Your task to perform on an android device: turn on translation in the chrome app Image 0: 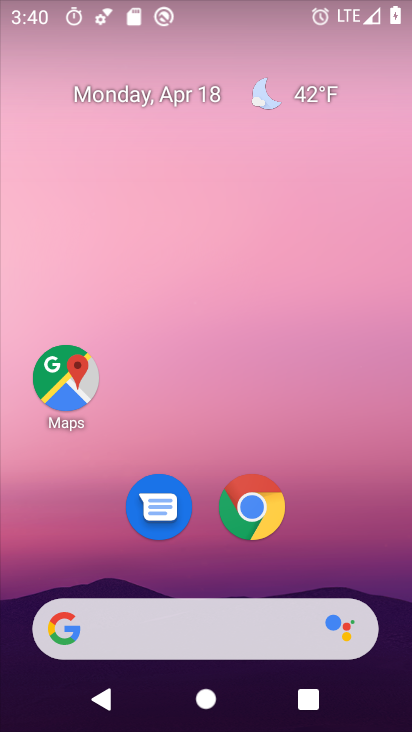
Step 0: drag from (360, 554) to (359, 204)
Your task to perform on an android device: turn on translation in the chrome app Image 1: 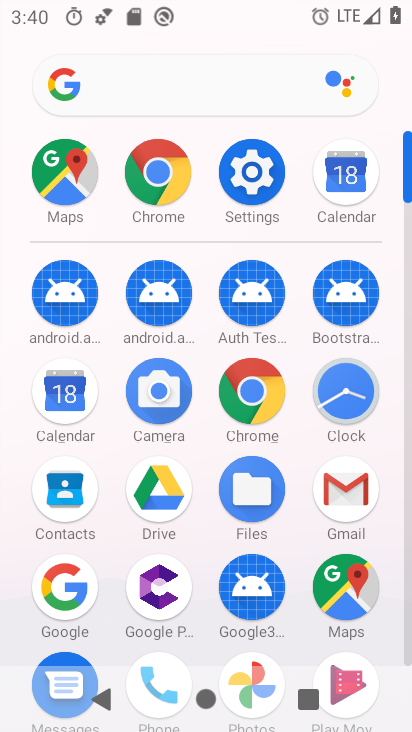
Step 1: click (265, 407)
Your task to perform on an android device: turn on translation in the chrome app Image 2: 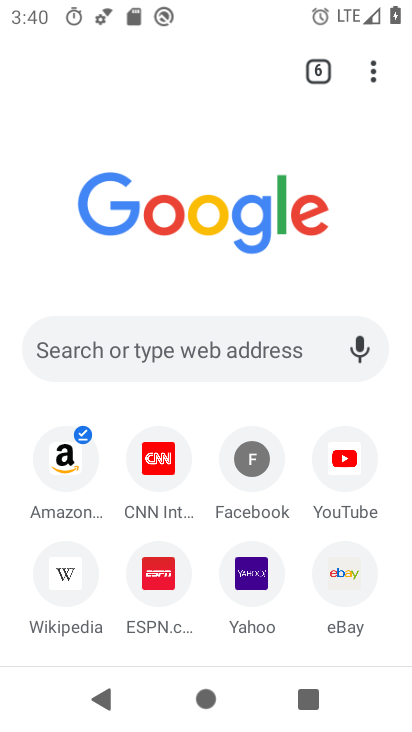
Step 2: click (374, 73)
Your task to perform on an android device: turn on translation in the chrome app Image 3: 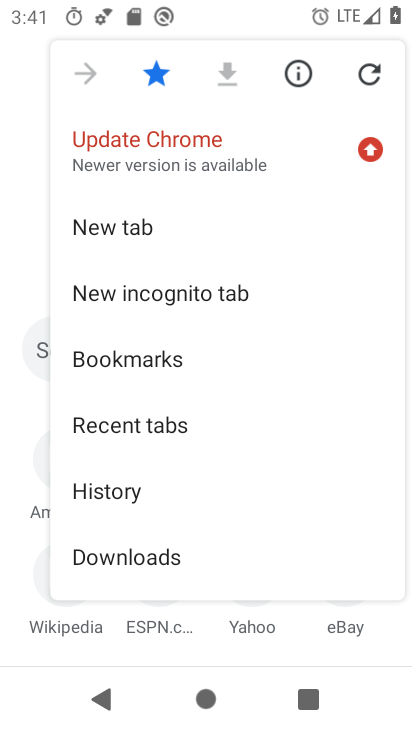
Step 3: drag from (193, 518) to (254, 250)
Your task to perform on an android device: turn on translation in the chrome app Image 4: 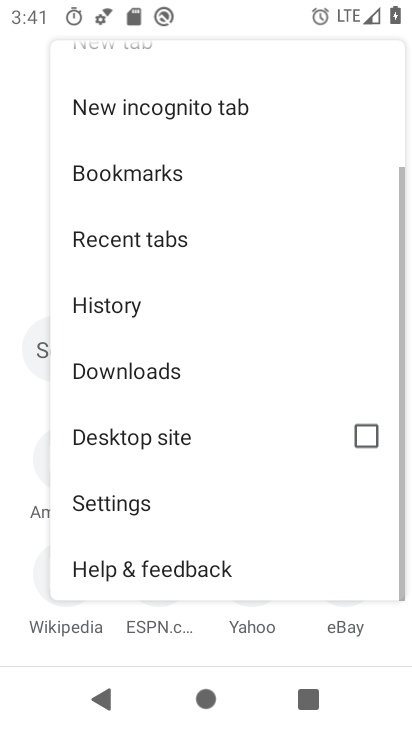
Step 4: drag from (236, 532) to (276, 318)
Your task to perform on an android device: turn on translation in the chrome app Image 5: 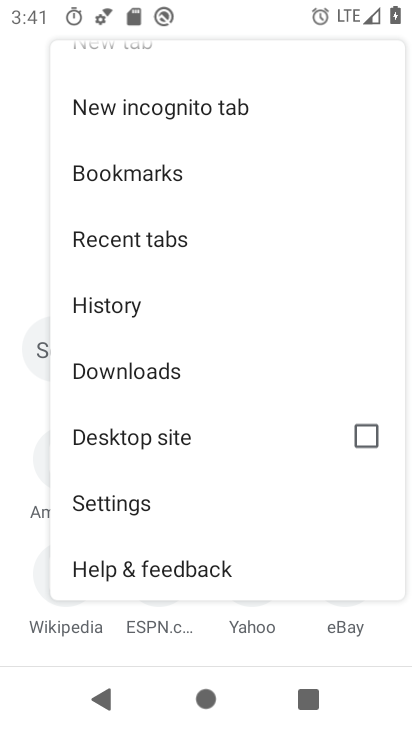
Step 5: click (140, 491)
Your task to perform on an android device: turn on translation in the chrome app Image 6: 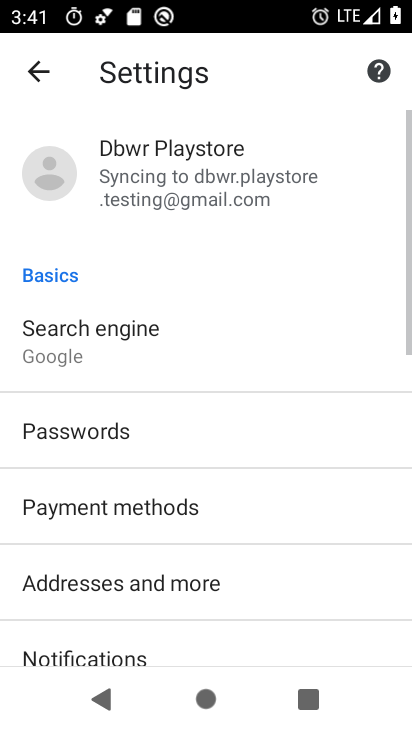
Step 6: drag from (325, 649) to (300, 357)
Your task to perform on an android device: turn on translation in the chrome app Image 7: 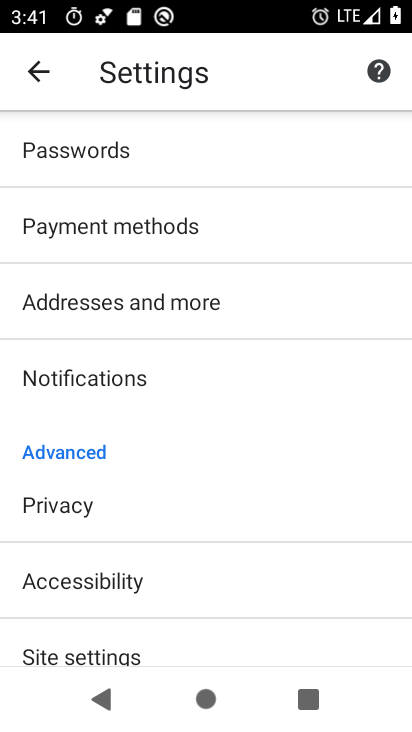
Step 7: drag from (258, 595) to (323, 314)
Your task to perform on an android device: turn on translation in the chrome app Image 8: 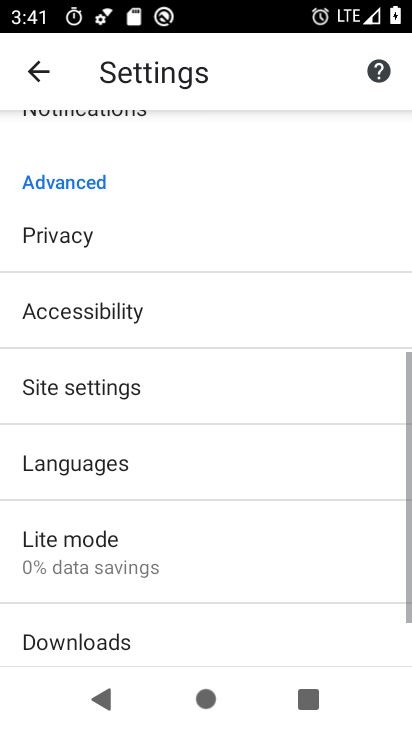
Step 8: click (108, 462)
Your task to perform on an android device: turn on translation in the chrome app Image 9: 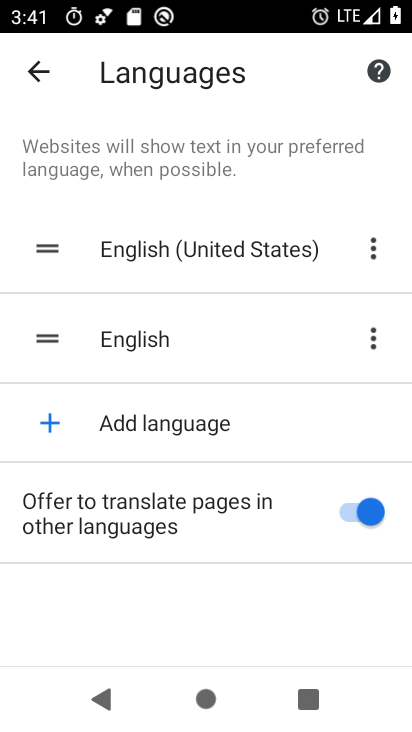
Step 9: click (177, 613)
Your task to perform on an android device: turn on translation in the chrome app Image 10: 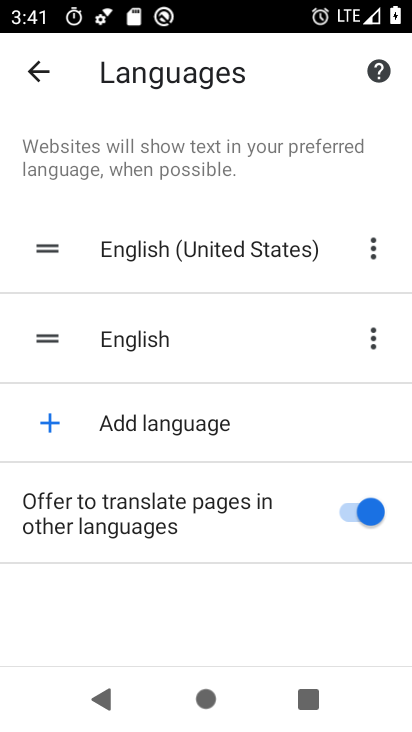
Step 10: task complete